Your task to perform on an android device: toggle notification dots Image 0: 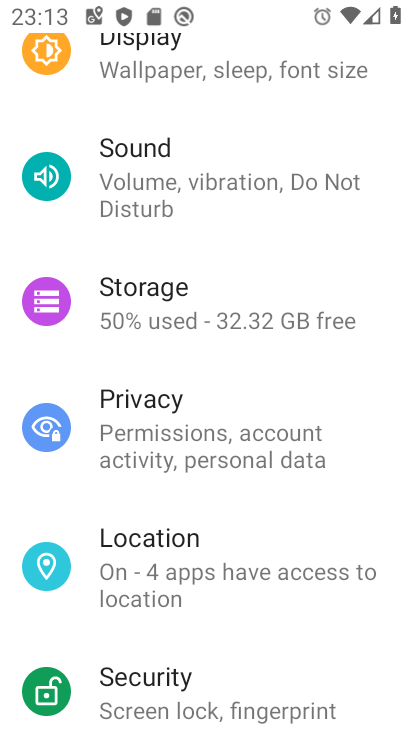
Step 0: drag from (214, 297) to (243, 728)
Your task to perform on an android device: toggle notification dots Image 1: 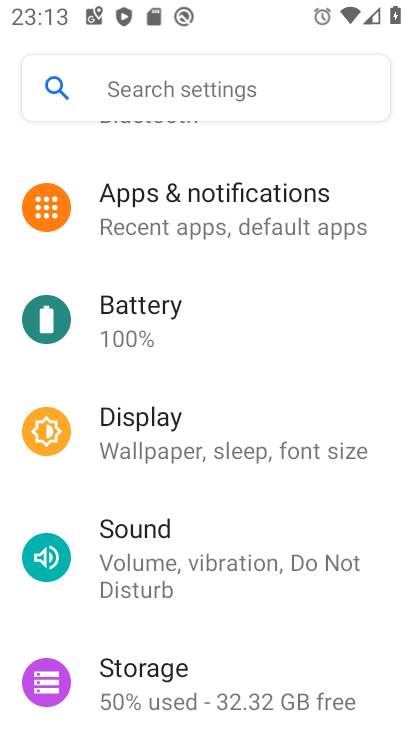
Step 1: click (202, 244)
Your task to perform on an android device: toggle notification dots Image 2: 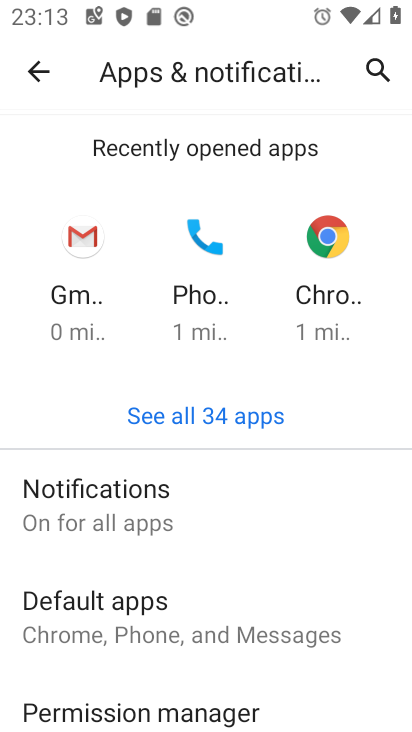
Step 2: click (164, 496)
Your task to perform on an android device: toggle notification dots Image 3: 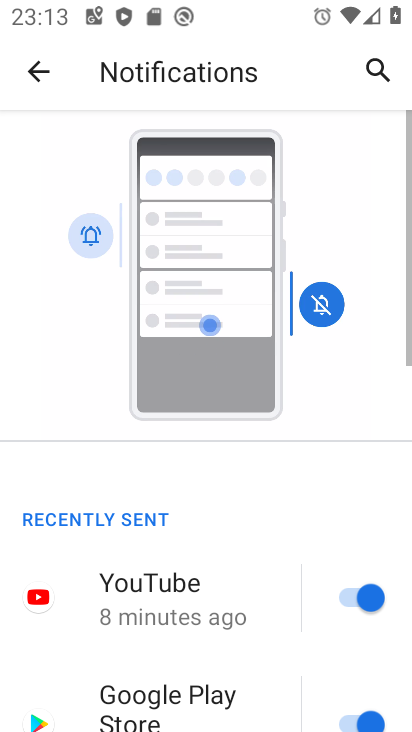
Step 3: drag from (222, 524) to (303, 21)
Your task to perform on an android device: toggle notification dots Image 4: 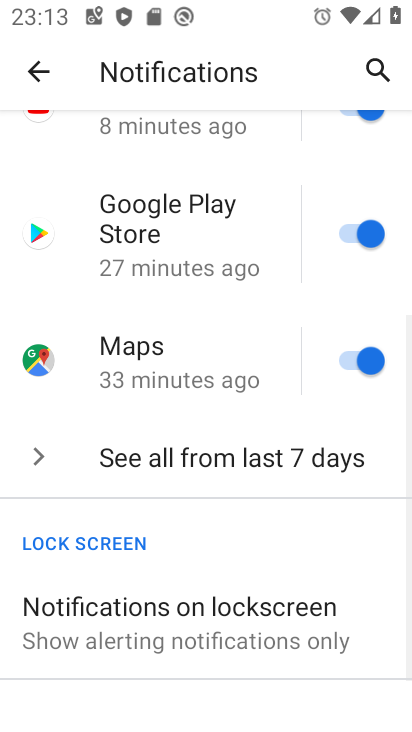
Step 4: drag from (201, 548) to (271, 204)
Your task to perform on an android device: toggle notification dots Image 5: 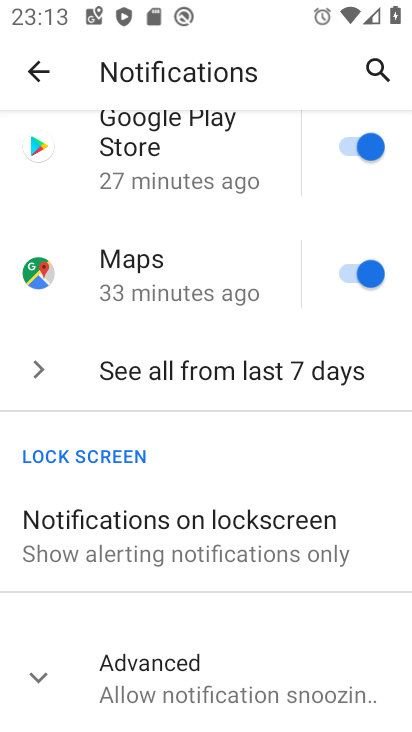
Step 5: click (194, 668)
Your task to perform on an android device: toggle notification dots Image 6: 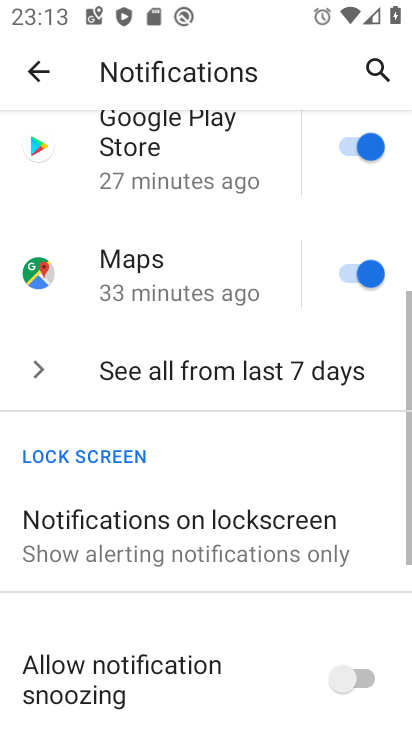
Step 6: drag from (203, 619) to (227, 143)
Your task to perform on an android device: toggle notification dots Image 7: 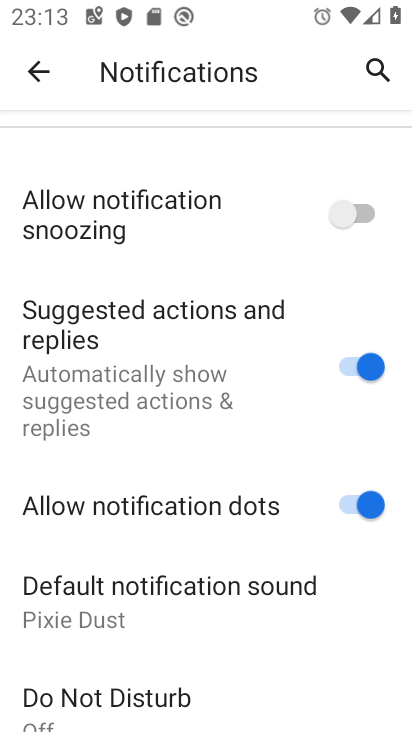
Step 7: drag from (142, 565) to (162, 226)
Your task to perform on an android device: toggle notification dots Image 8: 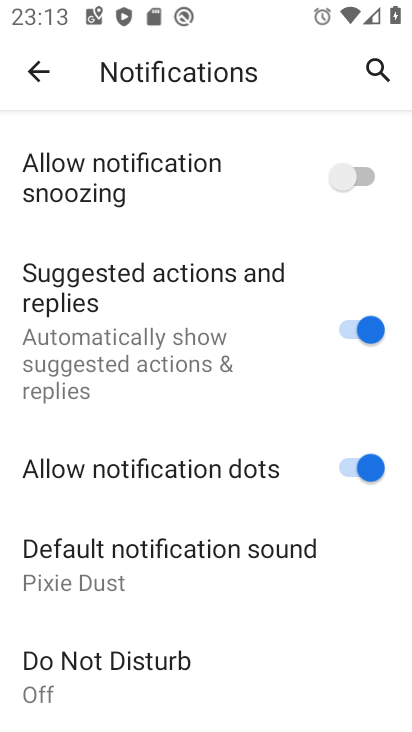
Step 8: click (365, 456)
Your task to perform on an android device: toggle notification dots Image 9: 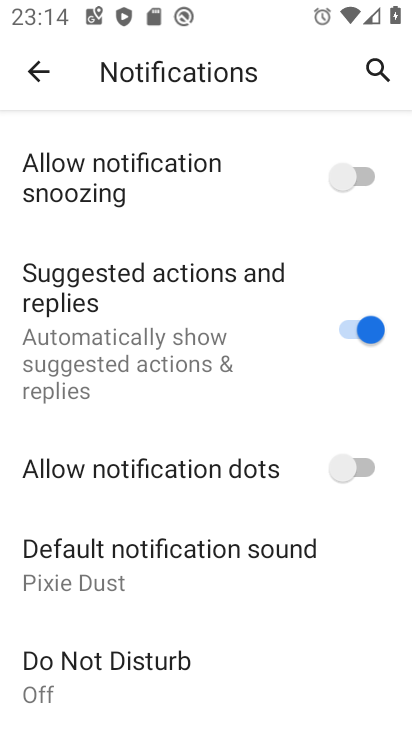
Step 9: task complete